Your task to perform on an android device: toggle airplane mode Image 0: 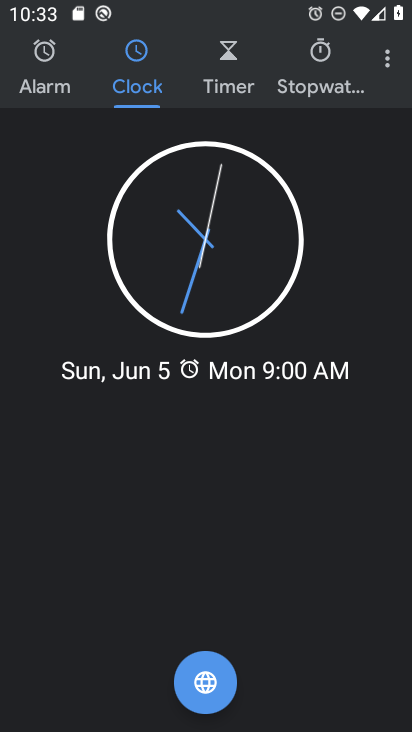
Step 0: press home button
Your task to perform on an android device: toggle airplane mode Image 1: 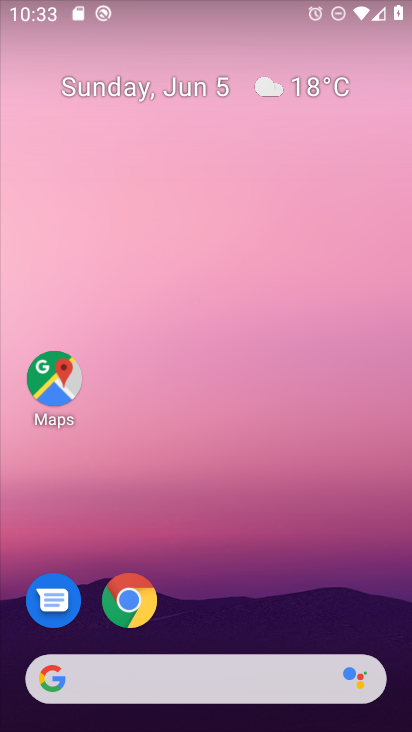
Step 1: drag from (221, 587) to (245, 18)
Your task to perform on an android device: toggle airplane mode Image 2: 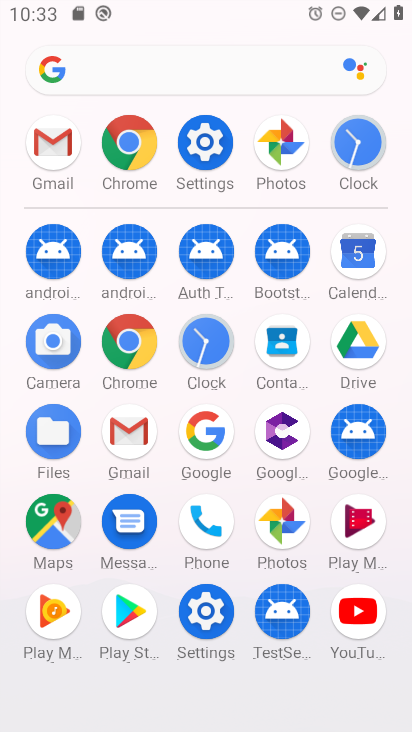
Step 2: click (212, 131)
Your task to perform on an android device: toggle airplane mode Image 3: 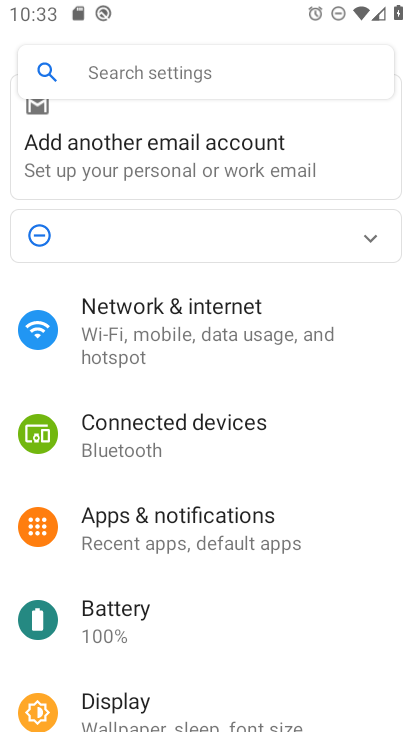
Step 3: click (249, 338)
Your task to perform on an android device: toggle airplane mode Image 4: 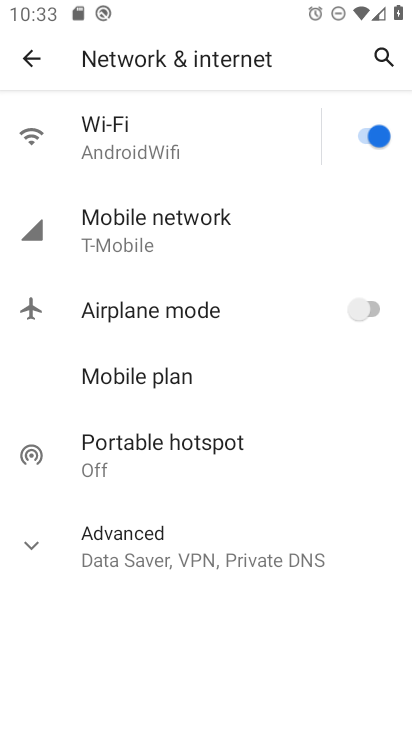
Step 4: click (362, 294)
Your task to perform on an android device: toggle airplane mode Image 5: 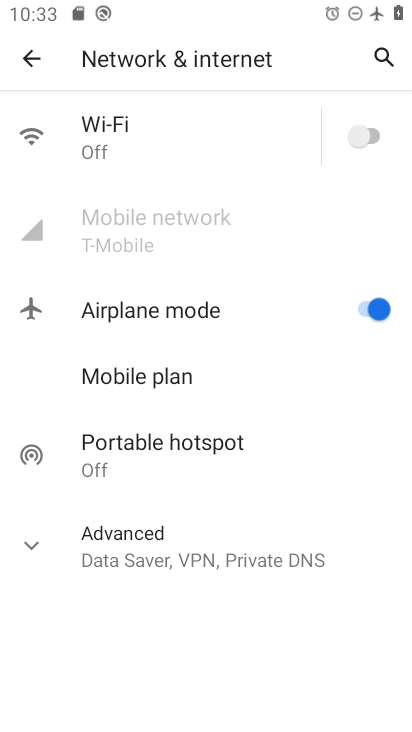
Step 5: task complete